Your task to perform on an android device: toggle data saver in the chrome app Image 0: 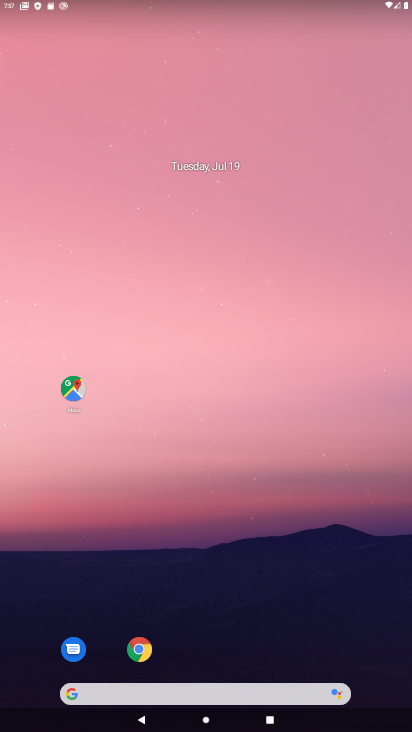
Step 0: click (146, 655)
Your task to perform on an android device: toggle data saver in the chrome app Image 1: 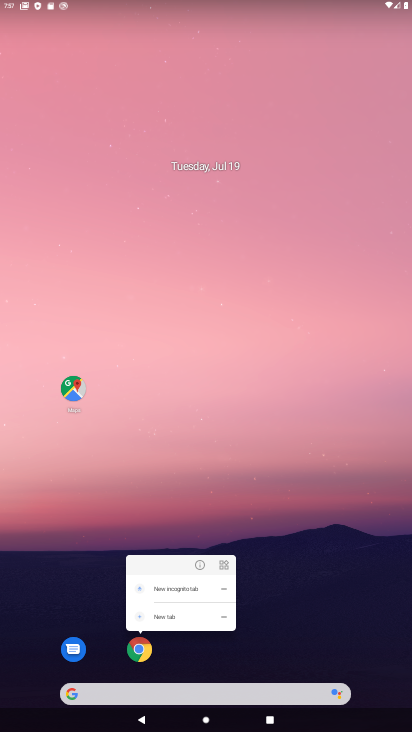
Step 1: click (142, 644)
Your task to perform on an android device: toggle data saver in the chrome app Image 2: 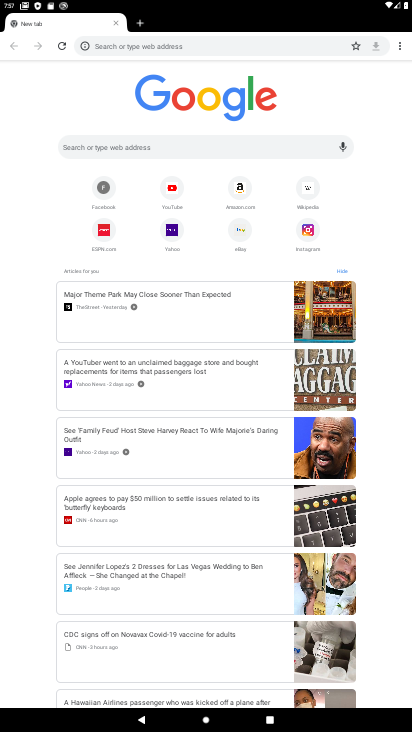
Step 2: click (400, 44)
Your task to perform on an android device: toggle data saver in the chrome app Image 3: 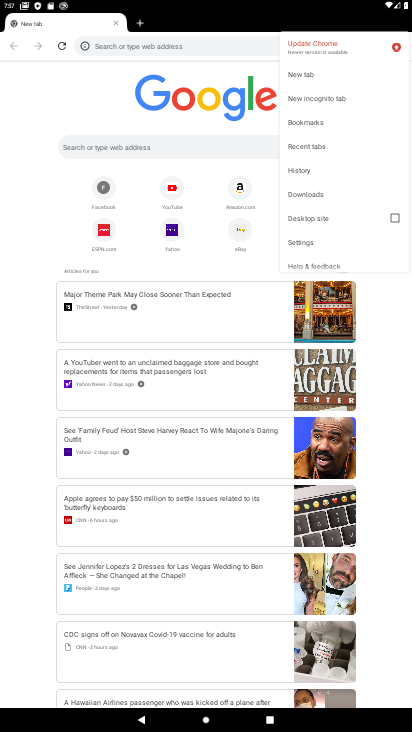
Step 3: click (316, 242)
Your task to perform on an android device: toggle data saver in the chrome app Image 4: 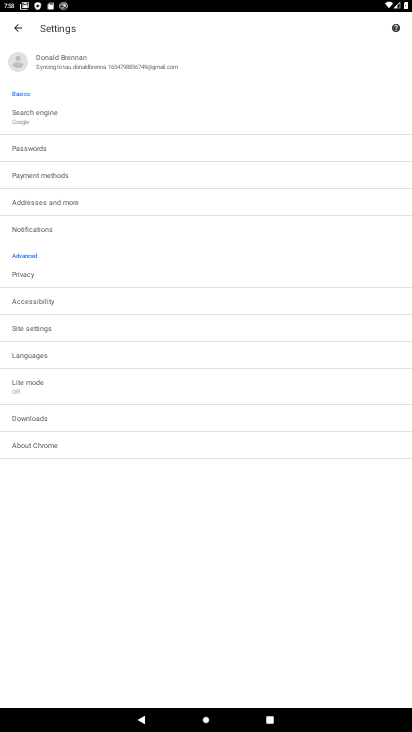
Step 4: click (84, 335)
Your task to perform on an android device: toggle data saver in the chrome app Image 5: 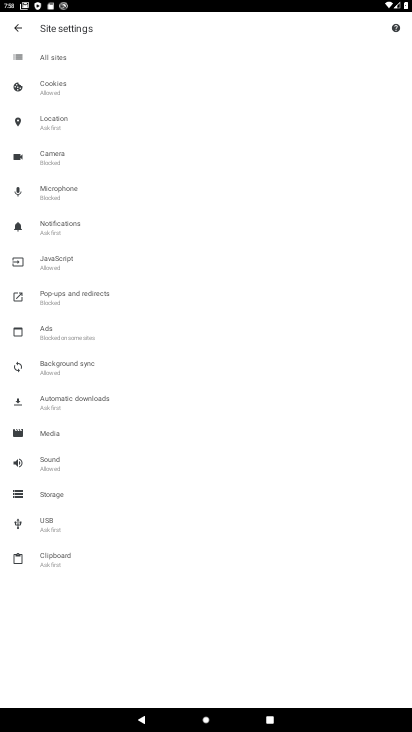
Step 5: click (16, 21)
Your task to perform on an android device: toggle data saver in the chrome app Image 6: 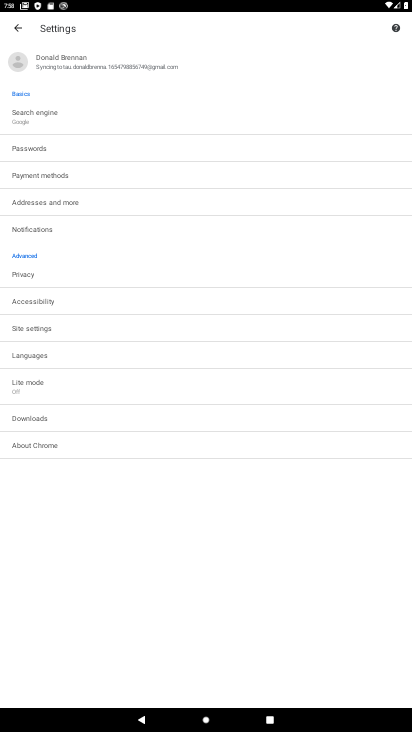
Step 6: click (44, 391)
Your task to perform on an android device: toggle data saver in the chrome app Image 7: 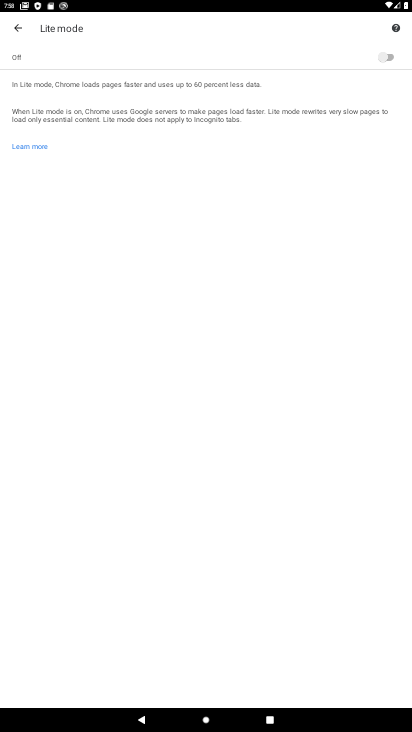
Step 7: click (397, 54)
Your task to perform on an android device: toggle data saver in the chrome app Image 8: 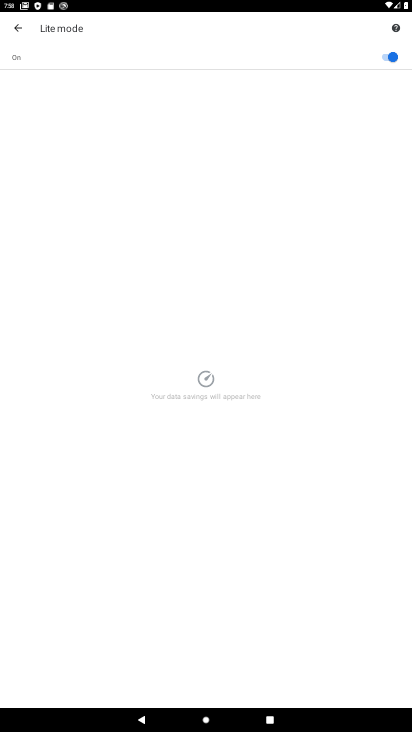
Step 8: task complete